Your task to perform on an android device: Open sound settings Image 0: 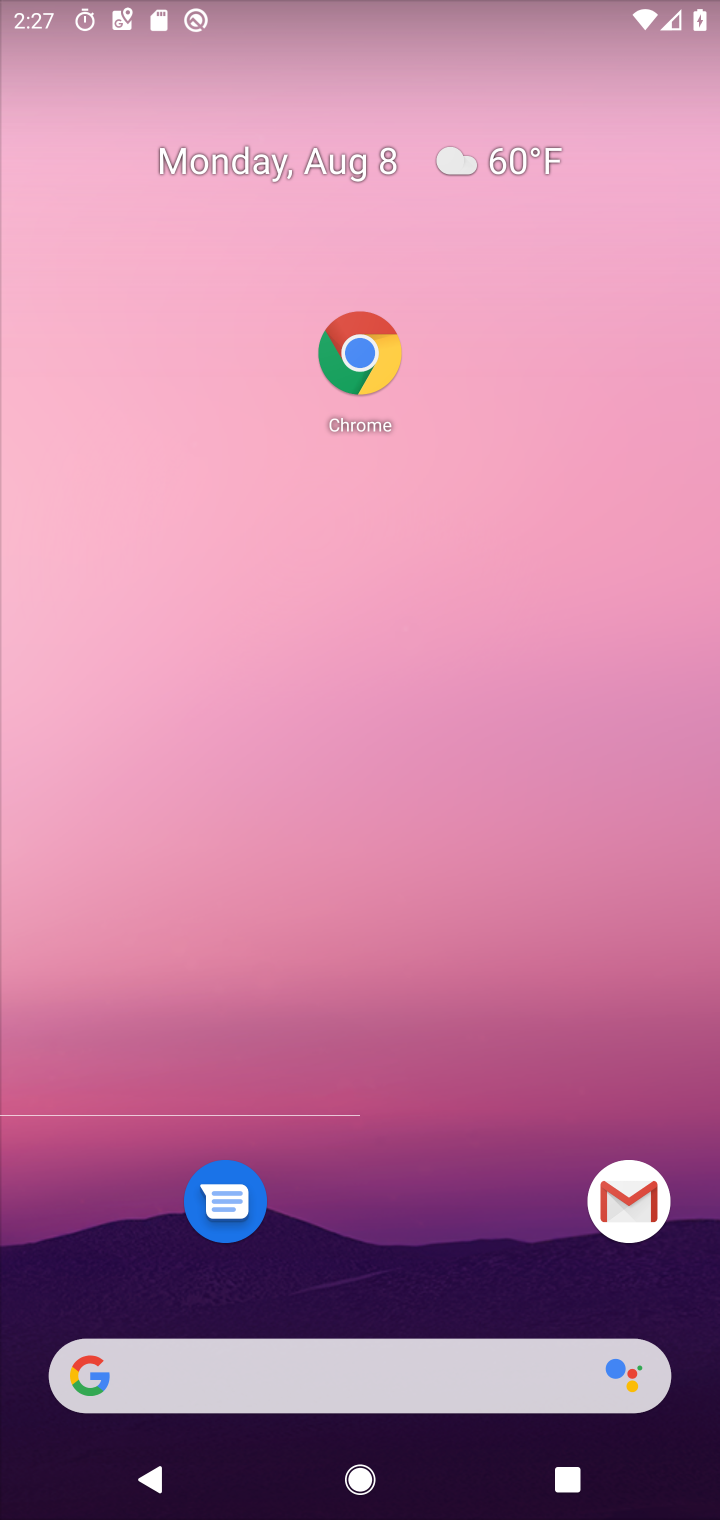
Step 0: press home button
Your task to perform on an android device: Open sound settings Image 1: 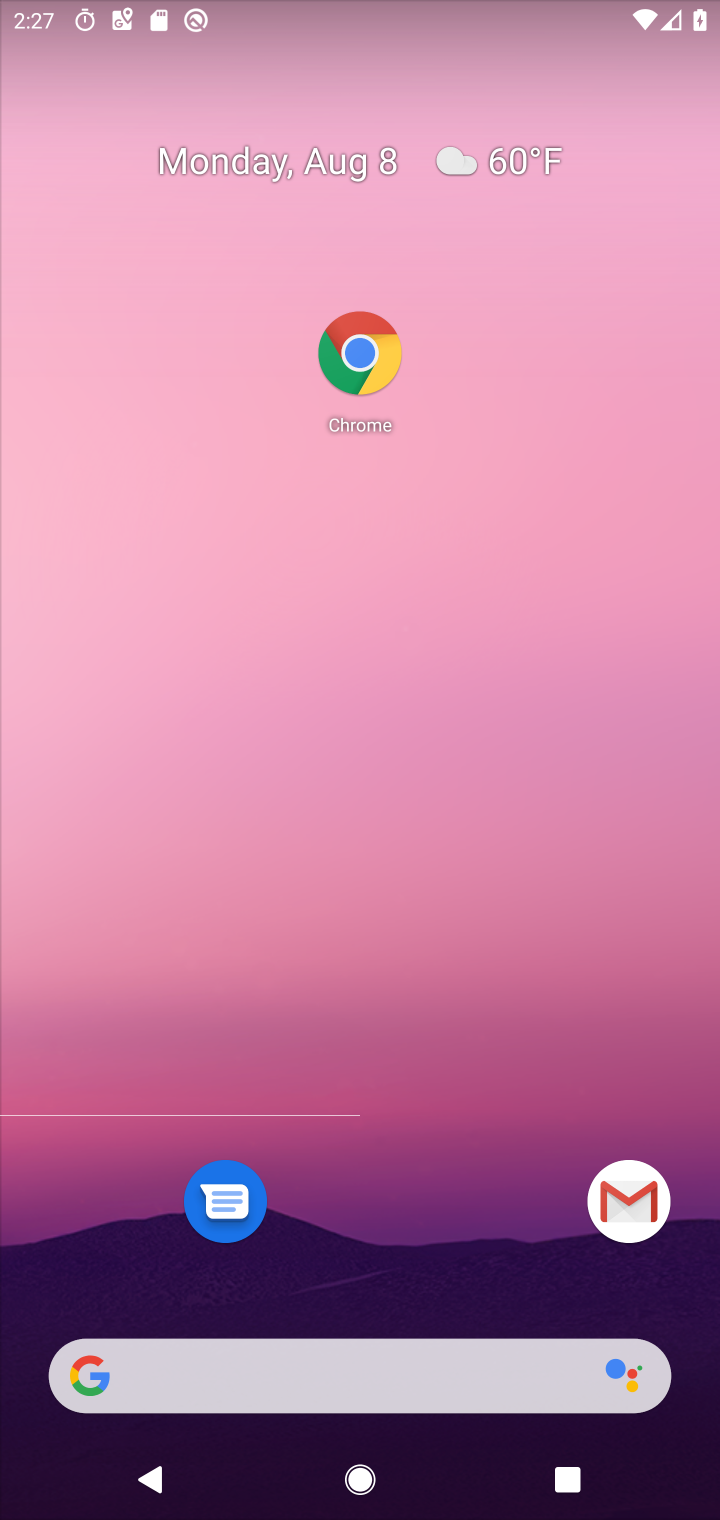
Step 1: drag from (392, 1372) to (549, 526)
Your task to perform on an android device: Open sound settings Image 2: 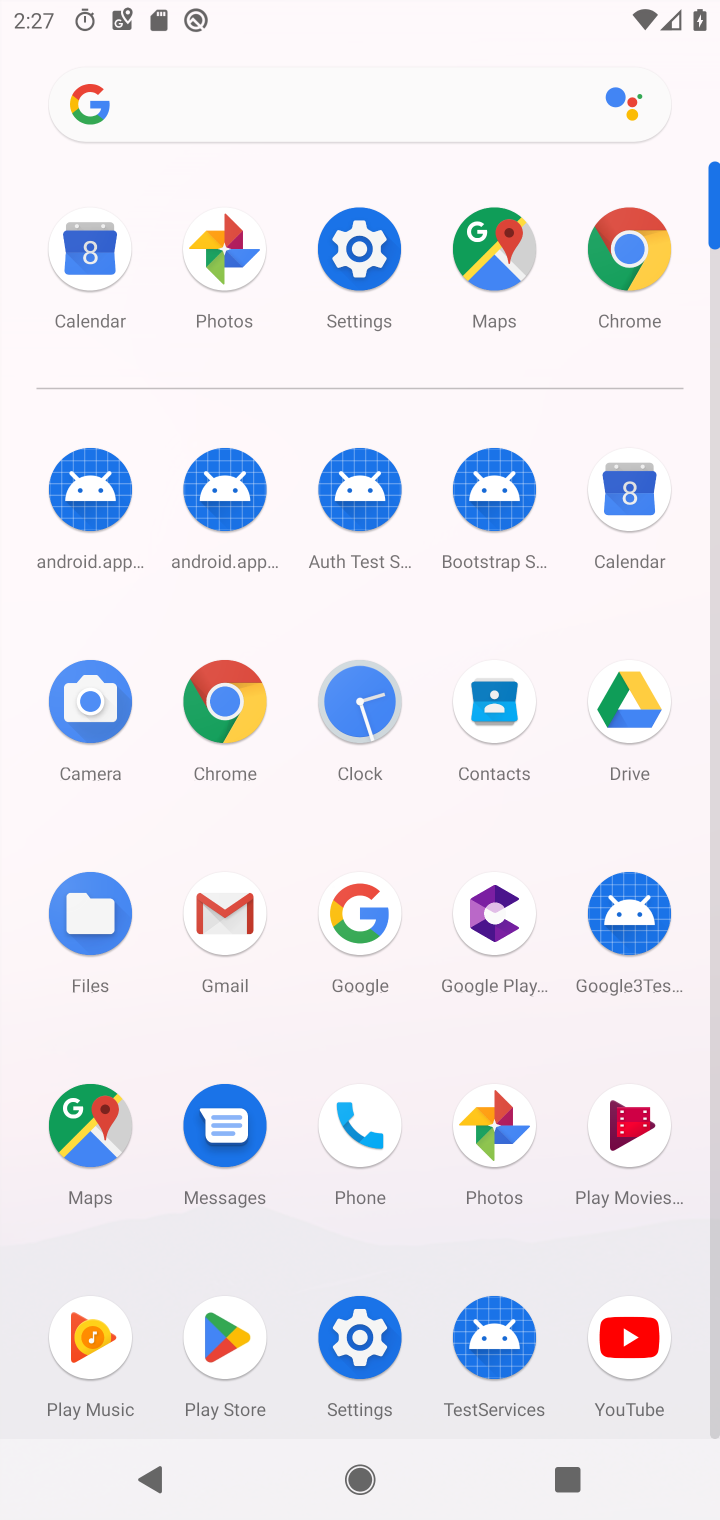
Step 2: click (368, 267)
Your task to perform on an android device: Open sound settings Image 3: 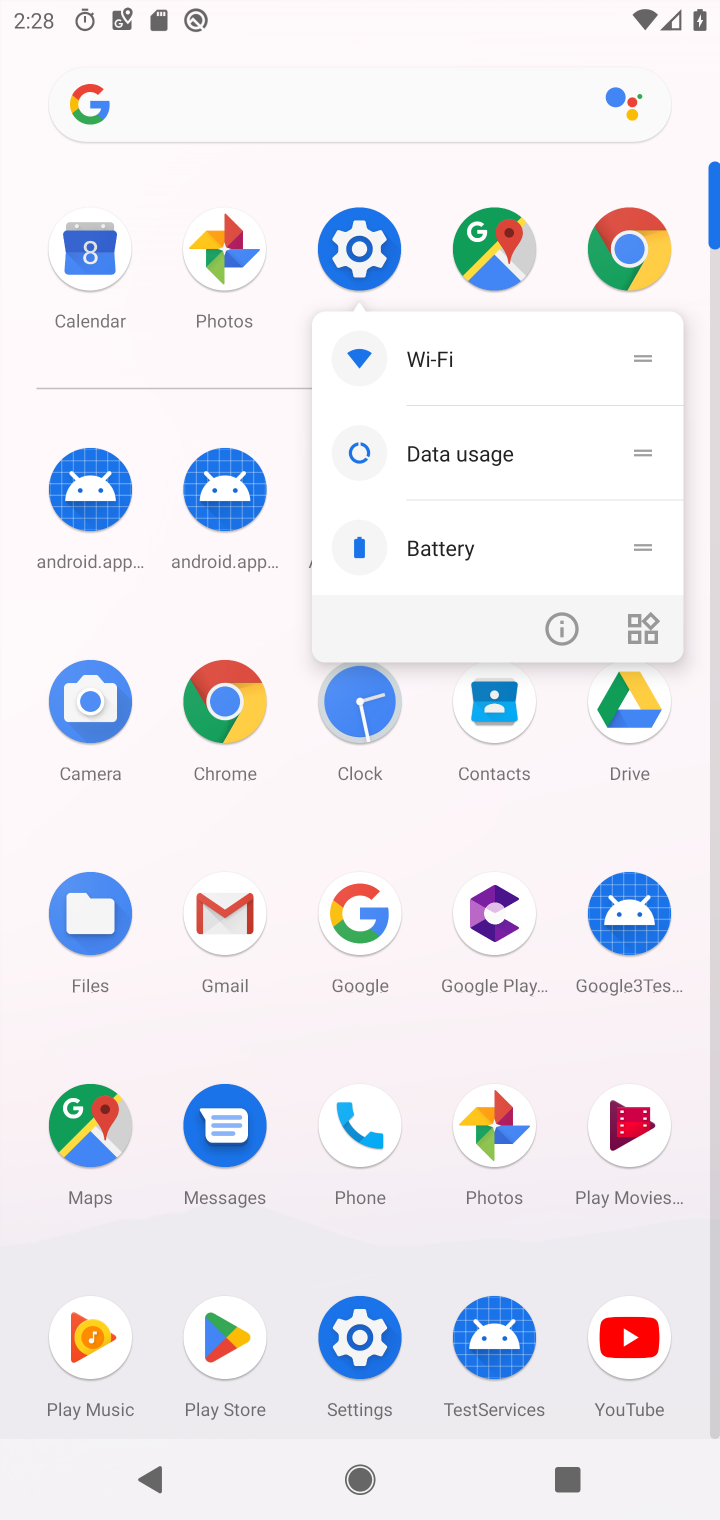
Step 3: click (338, 209)
Your task to perform on an android device: Open sound settings Image 4: 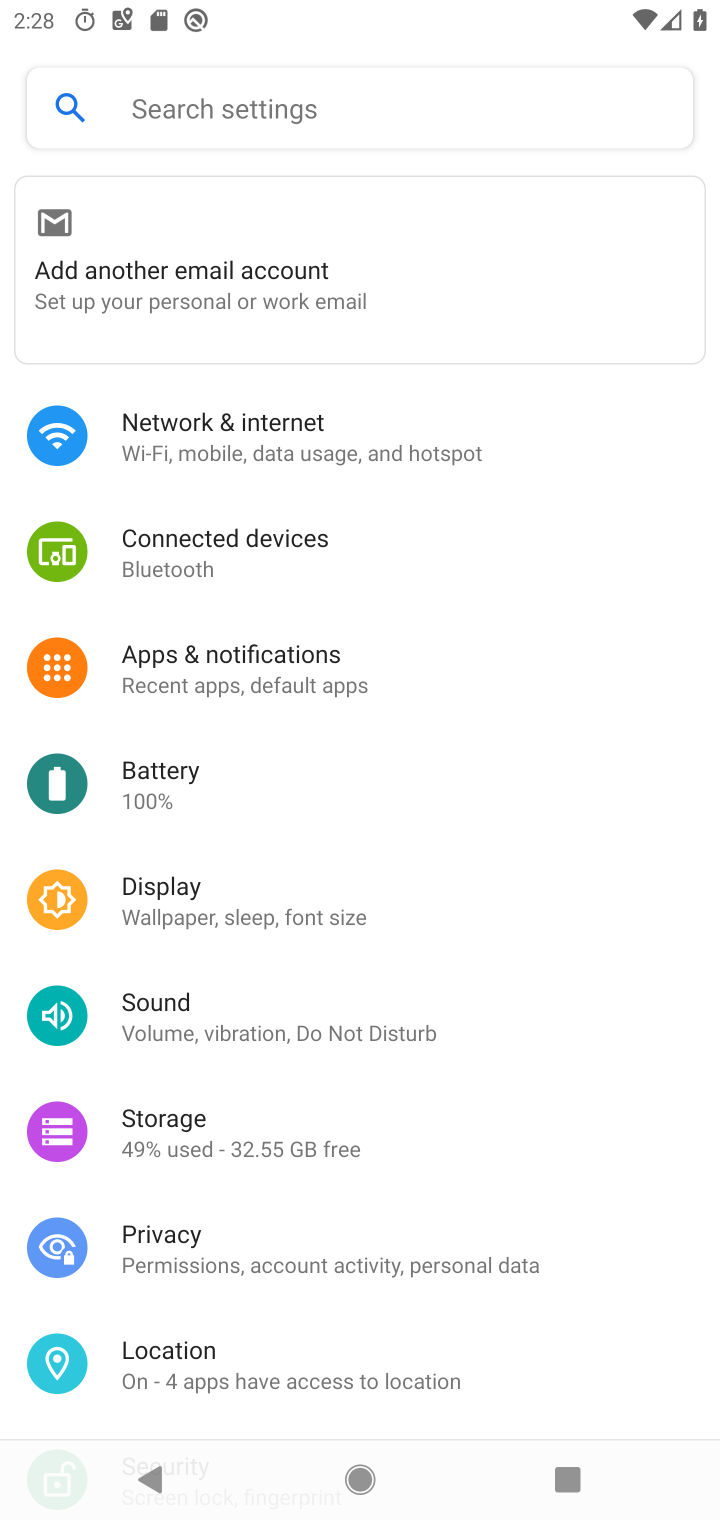
Step 4: click (243, 998)
Your task to perform on an android device: Open sound settings Image 5: 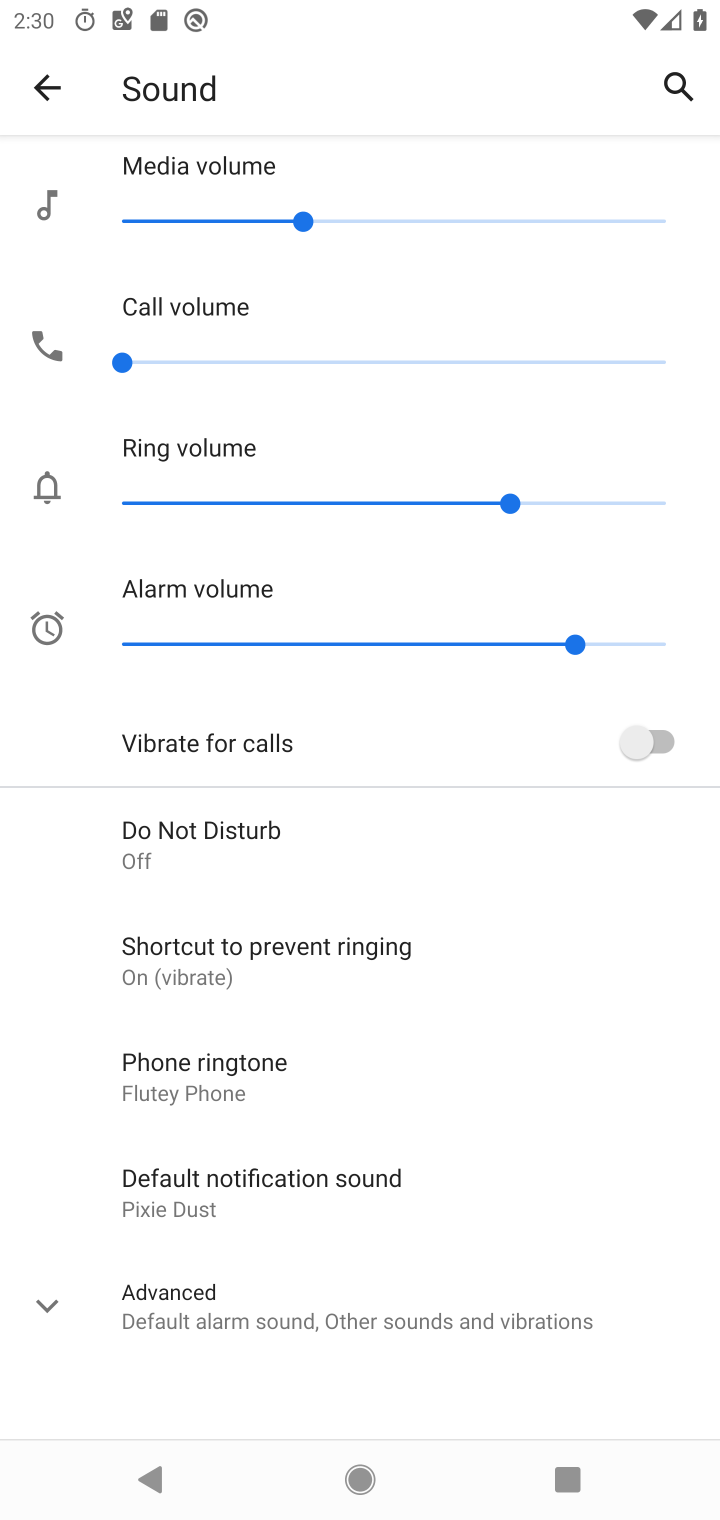
Step 5: task complete